Your task to perform on an android device: turn notification dots off Image 0: 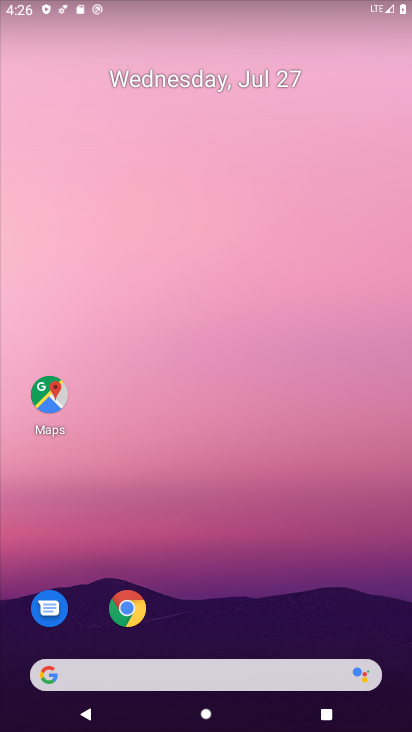
Step 0: drag from (211, 714) to (143, 115)
Your task to perform on an android device: turn notification dots off Image 1: 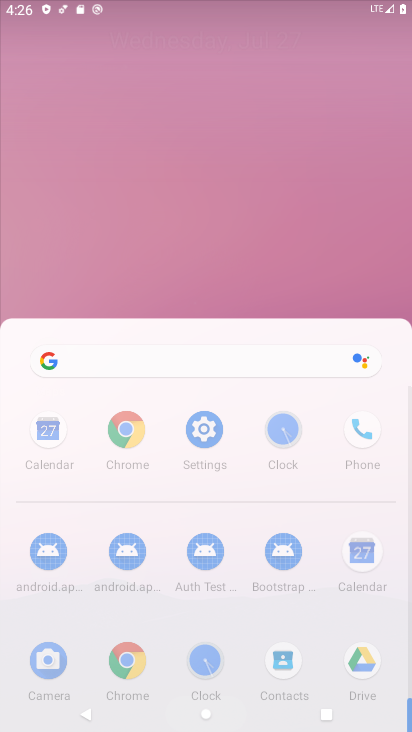
Step 1: drag from (213, 445) to (129, 71)
Your task to perform on an android device: turn notification dots off Image 2: 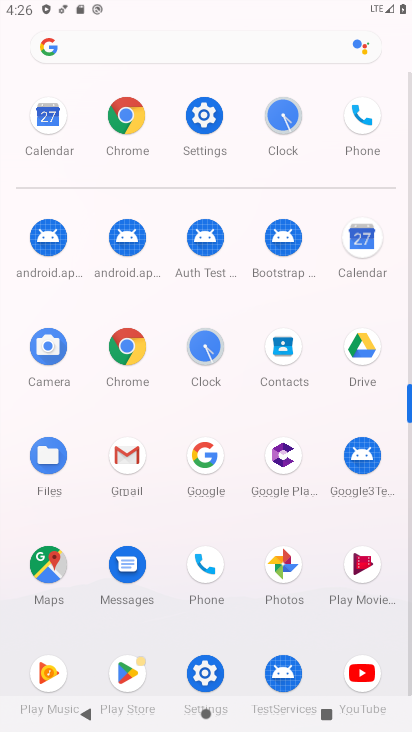
Step 2: drag from (161, 427) to (105, 176)
Your task to perform on an android device: turn notification dots off Image 3: 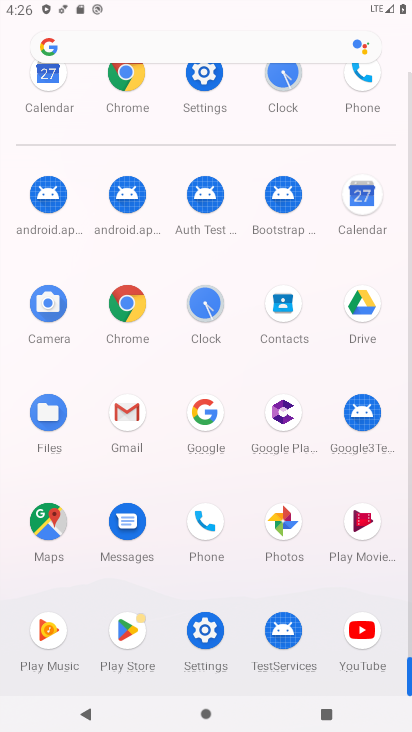
Step 3: click (209, 82)
Your task to perform on an android device: turn notification dots off Image 4: 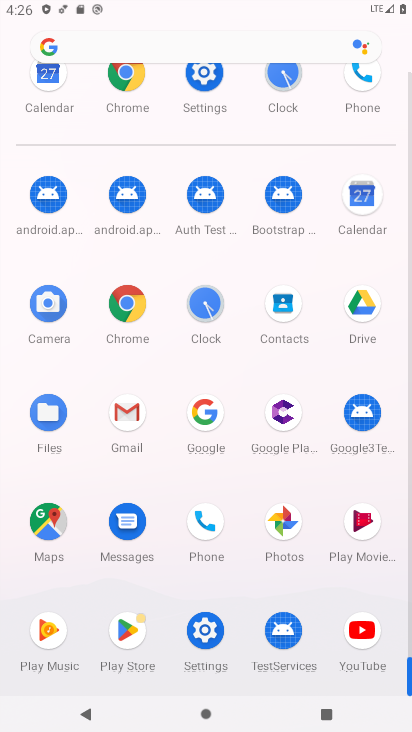
Step 4: click (209, 82)
Your task to perform on an android device: turn notification dots off Image 5: 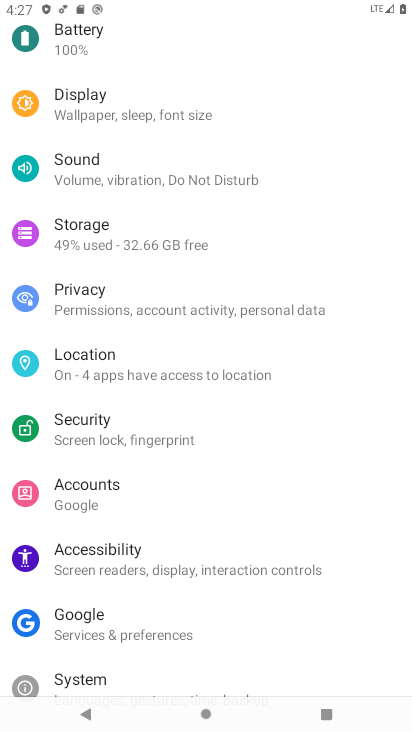
Step 5: drag from (105, 131) to (174, 445)
Your task to perform on an android device: turn notification dots off Image 6: 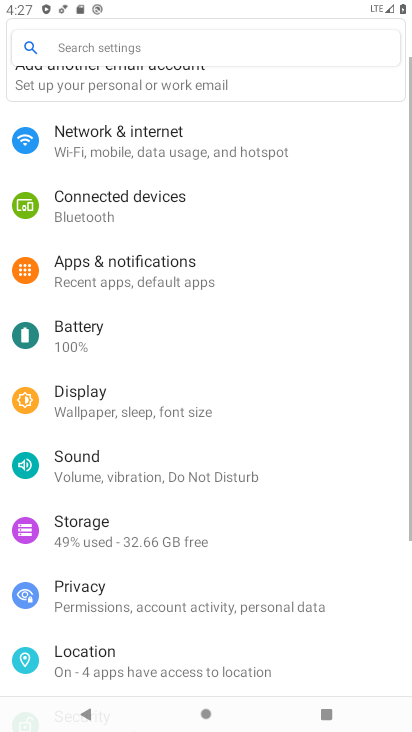
Step 6: drag from (129, 291) to (173, 488)
Your task to perform on an android device: turn notification dots off Image 7: 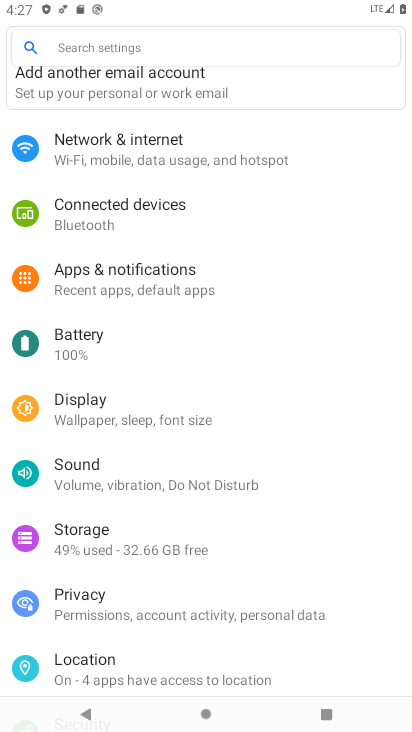
Step 7: click (128, 265)
Your task to perform on an android device: turn notification dots off Image 8: 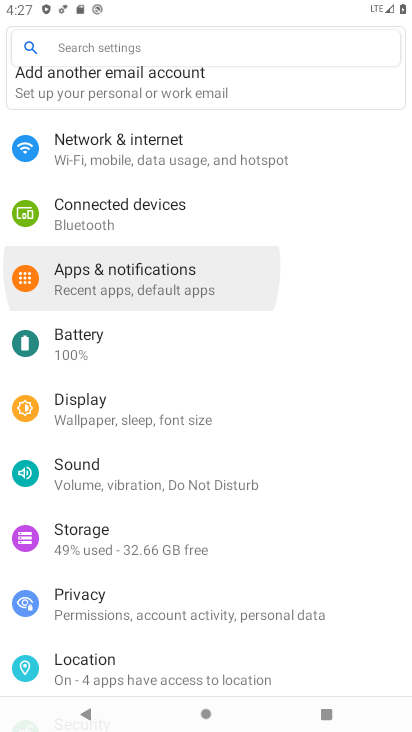
Step 8: click (126, 267)
Your task to perform on an android device: turn notification dots off Image 9: 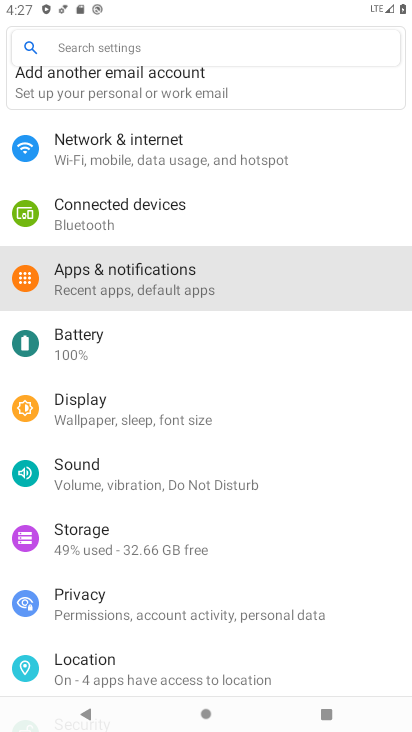
Step 9: click (126, 274)
Your task to perform on an android device: turn notification dots off Image 10: 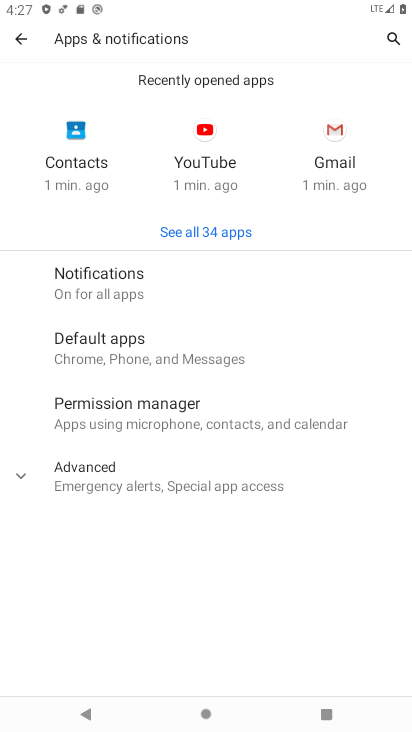
Step 10: click (197, 283)
Your task to perform on an android device: turn notification dots off Image 11: 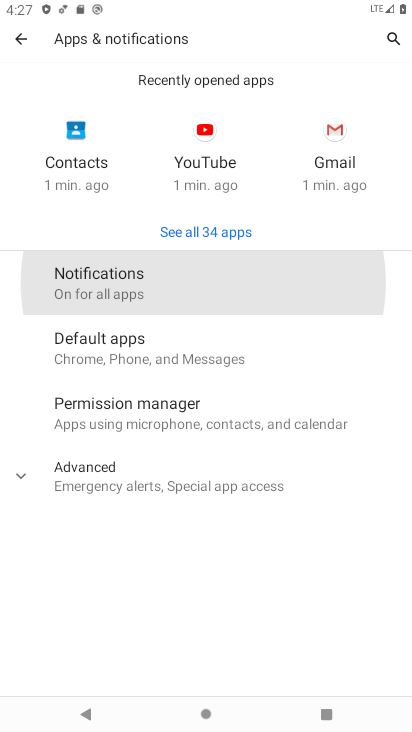
Step 11: click (197, 282)
Your task to perform on an android device: turn notification dots off Image 12: 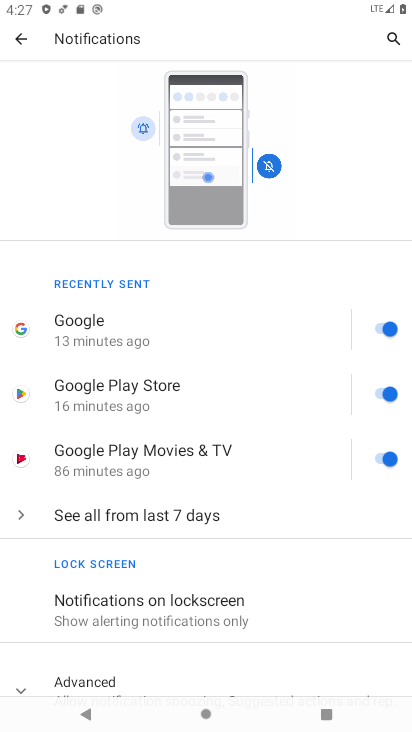
Step 12: drag from (160, 586) to (127, 215)
Your task to perform on an android device: turn notification dots off Image 13: 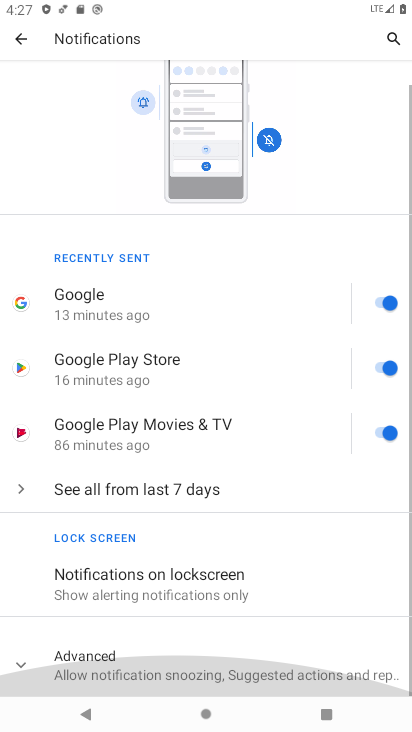
Step 13: drag from (156, 465) to (143, 224)
Your task to perform on an android device: turn notification dots off Image 14: 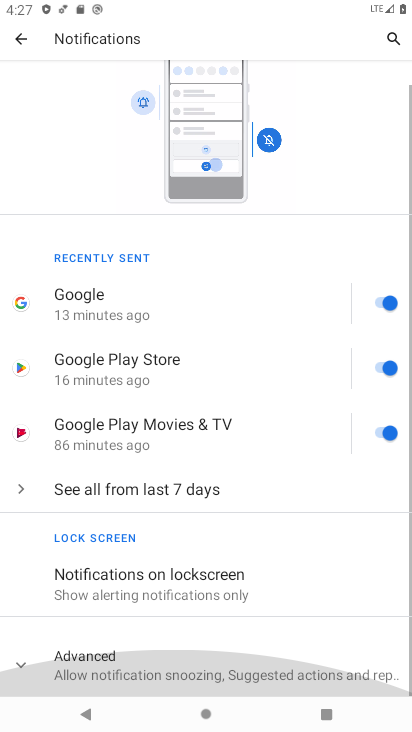
Step 14: drag from (202, 457) to (168, 239)
Your task to perform on an android device: turn notification dots off Image 15: 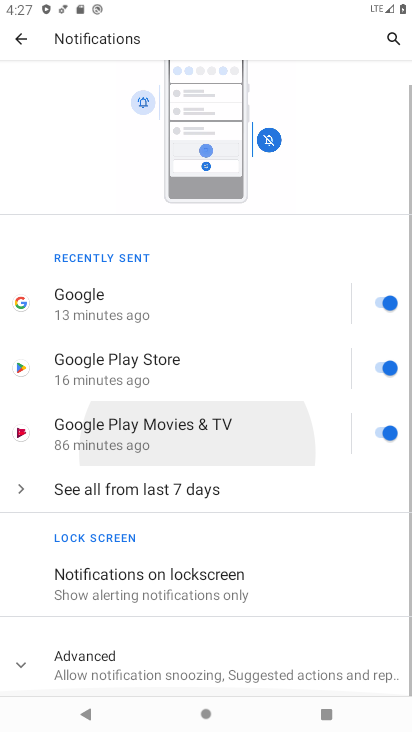
Step 15: drag from (205, 483) to (166, 200)
Your task to perform on an android device: turn notification dots off Image 16: 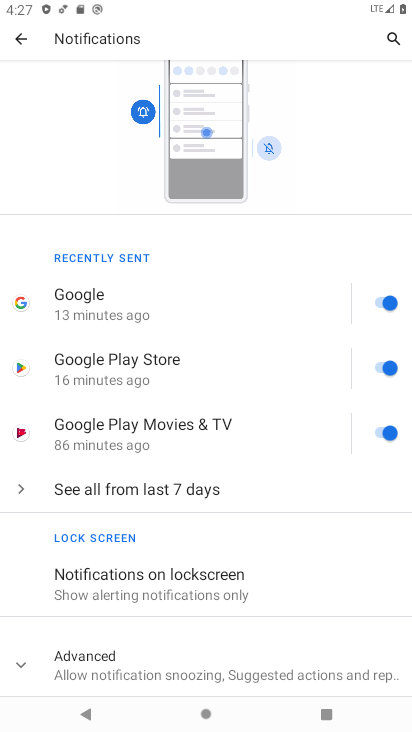
Step 16: click (84, 654)
Your task to perform on an android device: turn notification dots off Image 17: 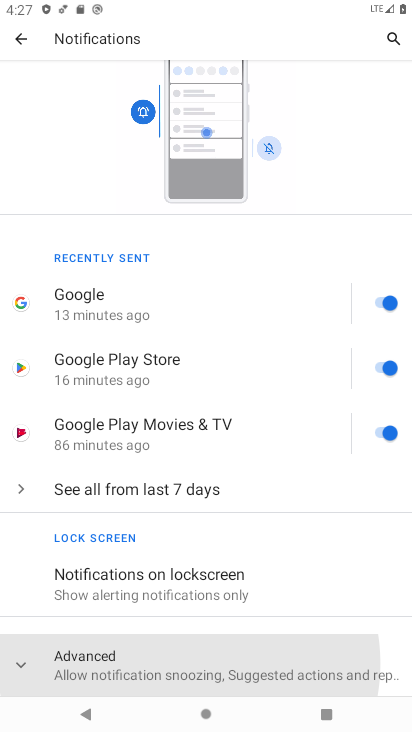
Step 17: click (90, 654)
Your task to perform on an android device: turn notification dots off Image 18: 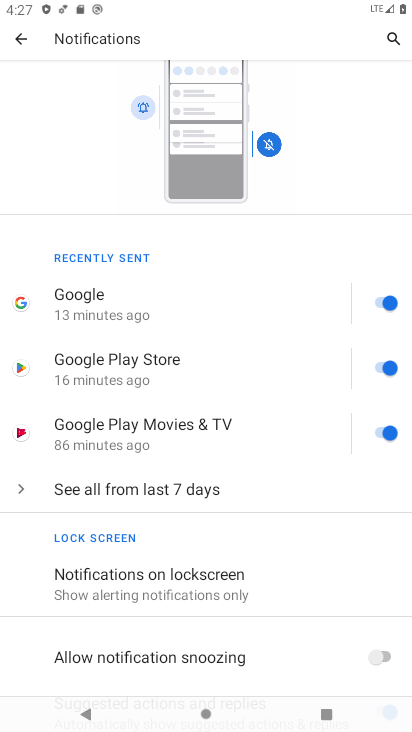
Step 18: drag from (226, 591) to (189, 457)
Your task to perform on an android device: turn notification dots off Image 19: 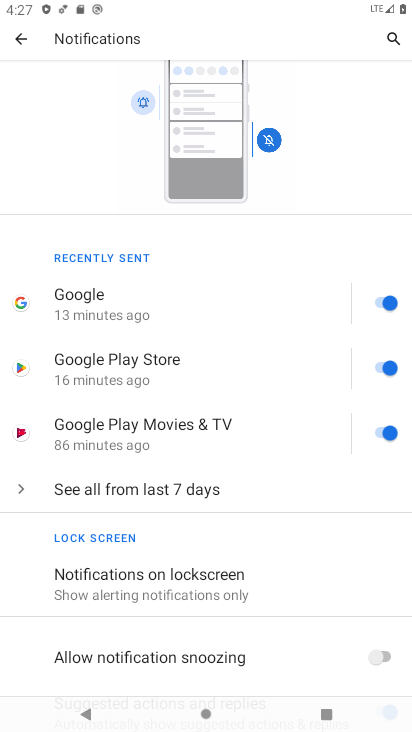
Step 19: drag from (219, 444) to (219, 254)
Your task to perform on an android device: turn notification dots off Image 20: 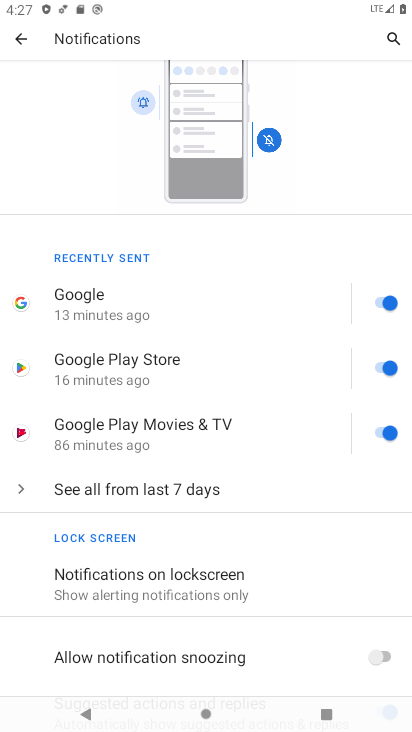
Step 20: drag from (266, 476) to (263, 289)
Your task to perform on an android device: turn notification dots off Image 21: 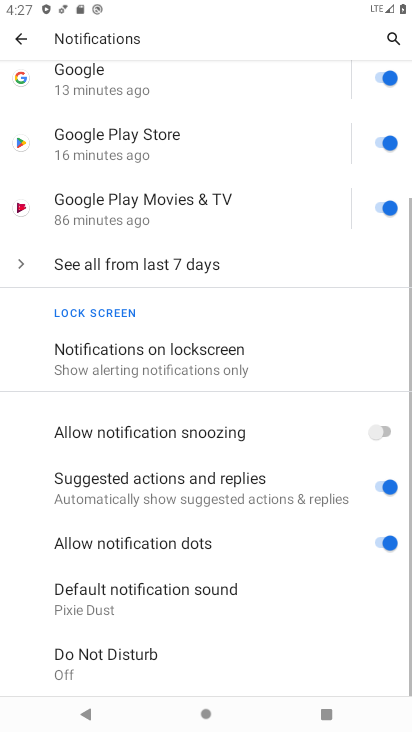
Step 21: drag from (319, 489) to (304, 295)
Your task to perform on an android device: turn notification dots off Image 22: 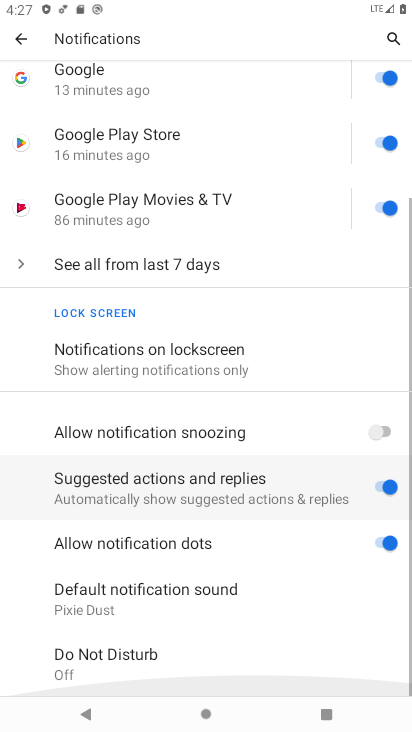
Step 22: drag from (278, 445) to (273, 292)
Your task to perform on an android device: turn notification dots off Image 23: 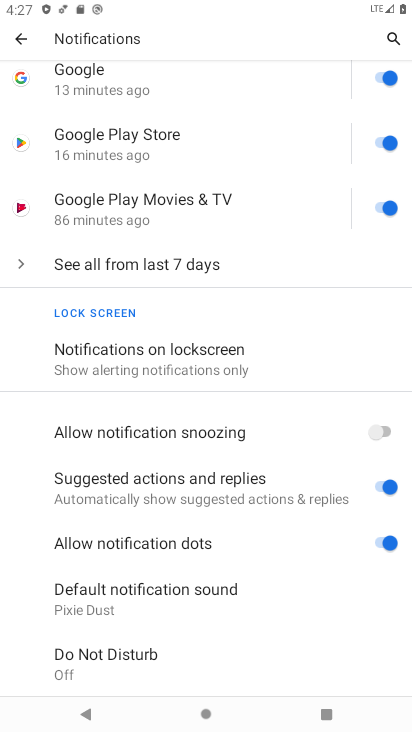
Step 23: click (384, 542)
Your task to perform on an android device: turn notification dots off Image 24: 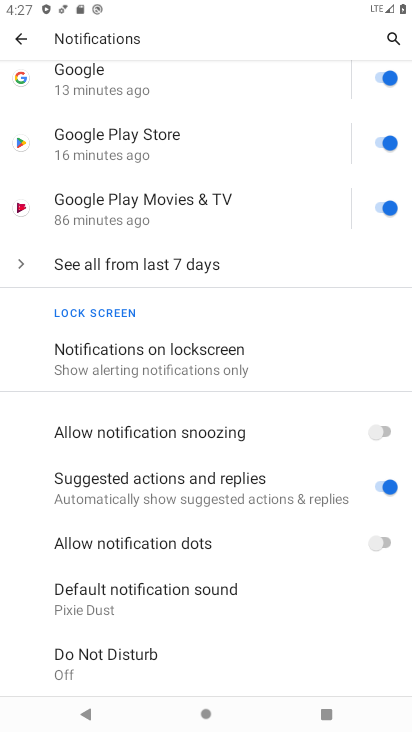
Step 24: task complete